Your task to perform on an android device: turn off notifications settings in the gmail app Image 0: 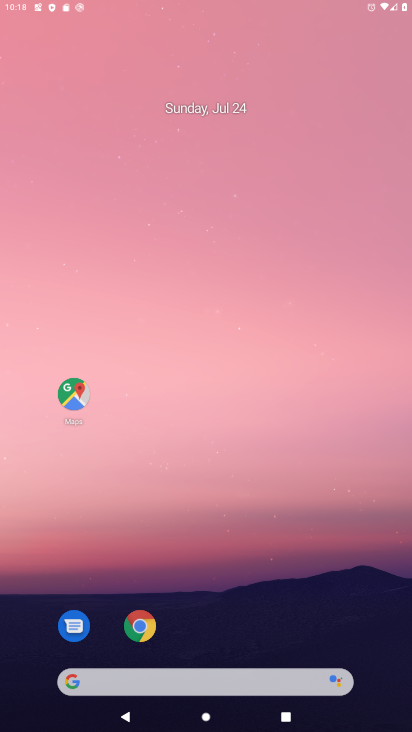
Step 0: click (230, 339)
Your task to perform on an android device: turn off notifications settings in the gmail app Image 1: 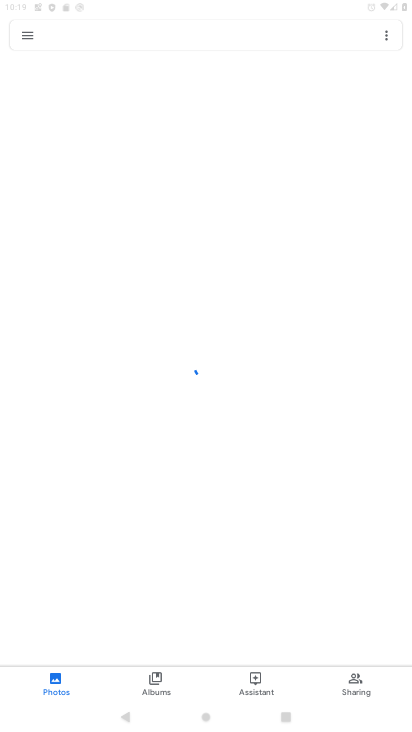
Step 1: press home button
Your task to perform on an android device: turn off notifications settings in the gmail app Image 2: 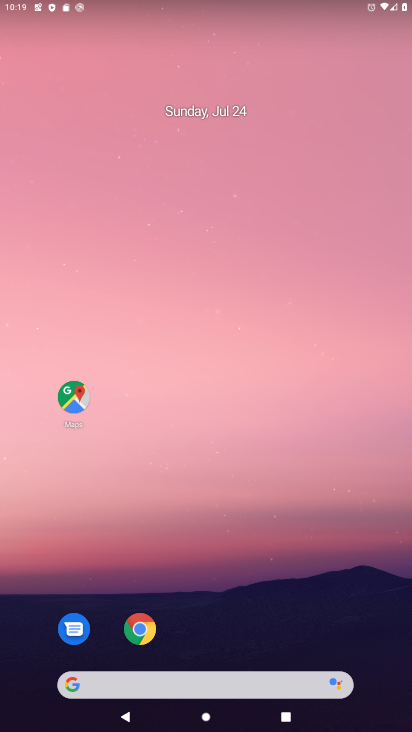
Step 2: drag from (178, 571) to (191, 6)
Your task to perform on an android device: turn off notifications settings in the gmail app Image 3: 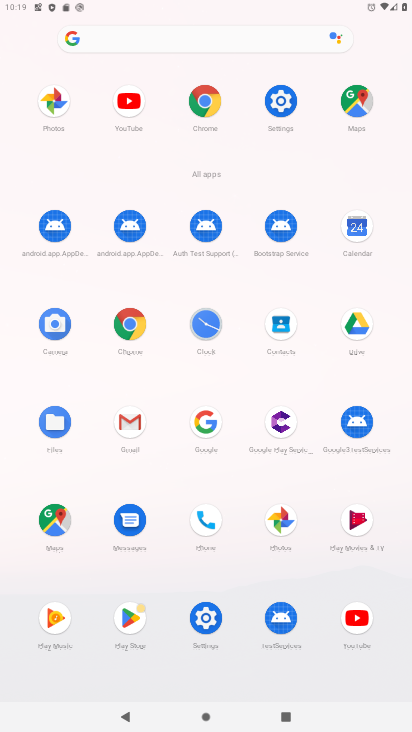
Step 3: click (126, 418)
Your task to perform on an android device: turn off notifications settings in the gmail app Image 4: 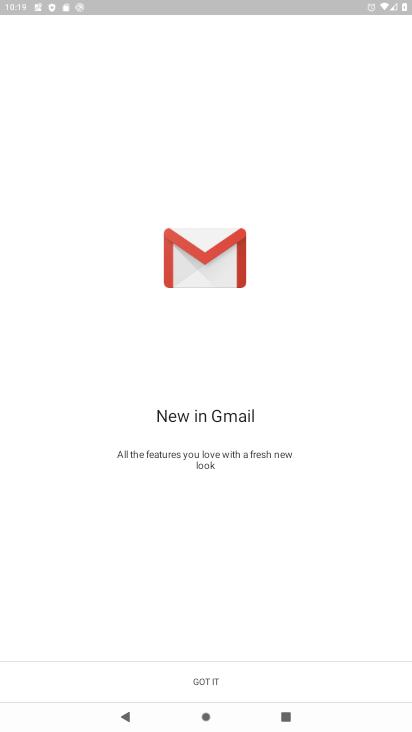
Step 4: drag from (252, 575) to (269, 338)
Your task to perform on an android device: turn off notifications settings in the gmail app Image 5: 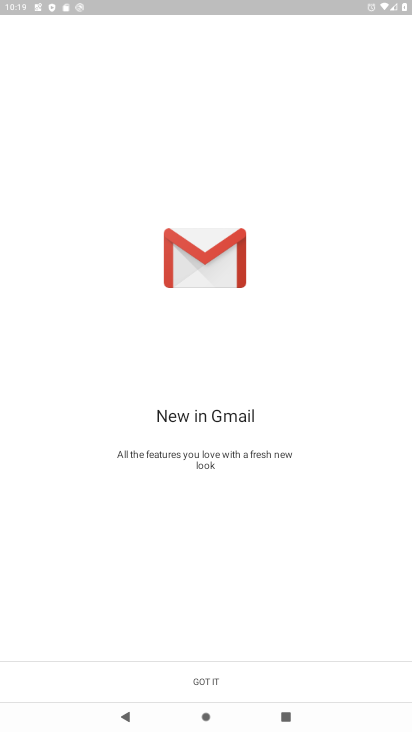
Step 5: click (217, 685)
Your task to perform on an android device: turn off notifications settings in the gmail app Image 6: 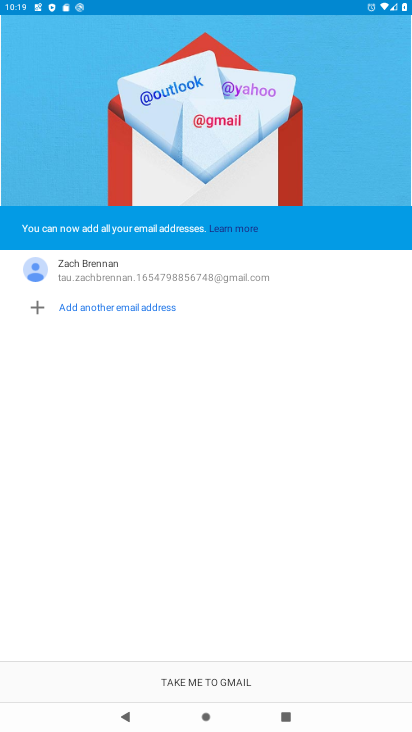
Step 6: click (206, 676)
Your task to perform on an android device: turn off notifications settings in the gmail app Image 7: 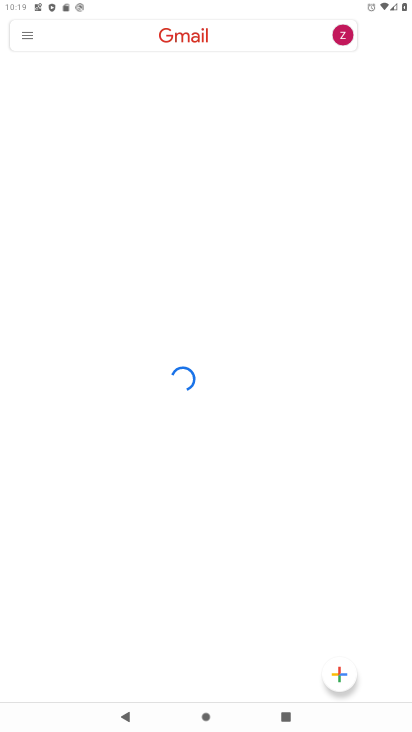
Step 7: click (31, 31)
Your task to perform on an android device: turn off notifications settings in the gmail app Image 8: 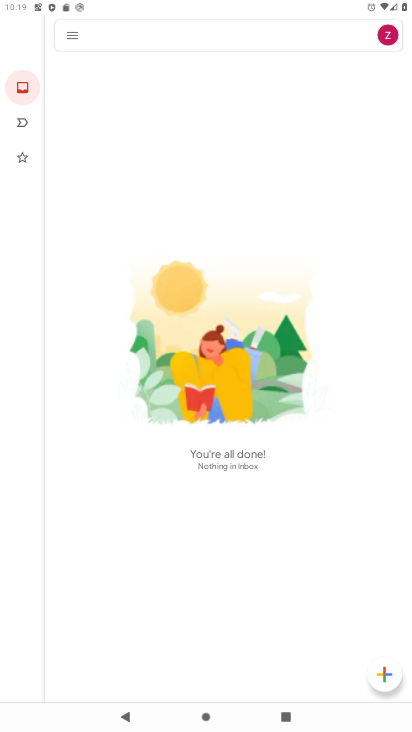
Step 8: click (71, 50)
Your task to perform on an android device: turn off notifications settings in the gmail app Image 9: 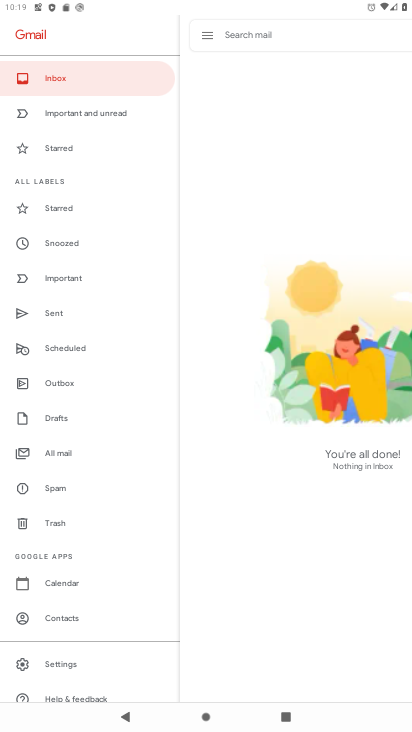
Step 9: click (50, 655)
Your task to perform on an android device: turn off notifications settings in the gmail app Image 10: 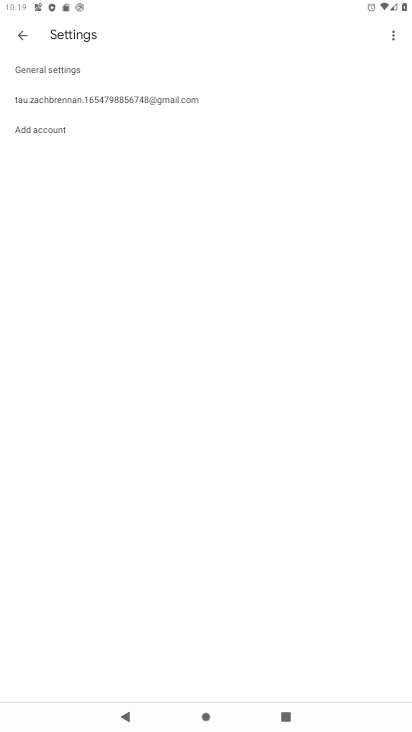
Step 10: click (115, 102)
Your task to perform on an android device: turn off notifications settings in the gmail app Image 11: 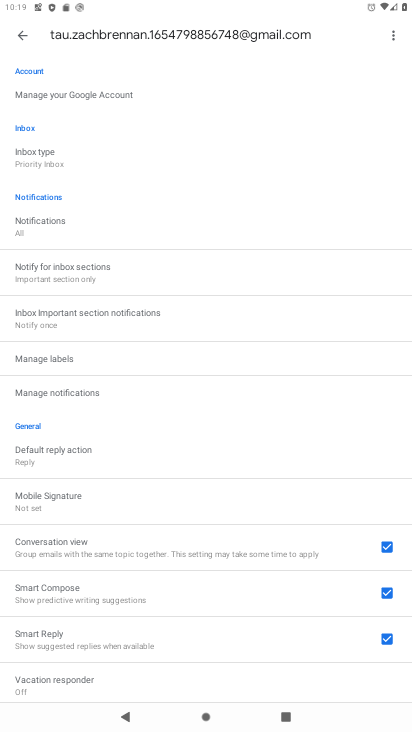
Step 11: click (100, 397)
Your task to perform on an android device: turn off notifications settings in the gmail app Image 12: 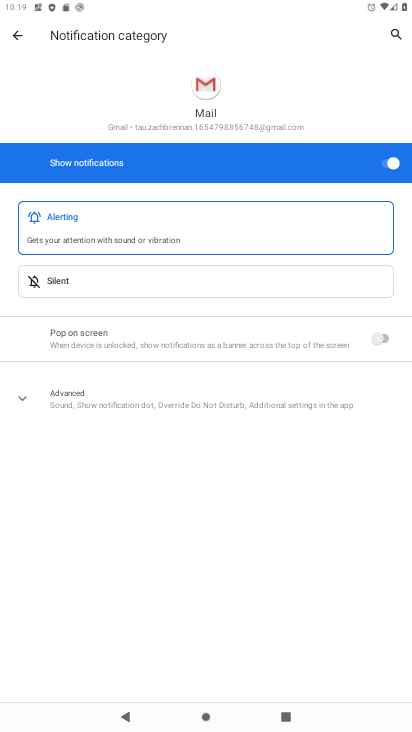
Step 12: click (387, 158)
Your task to perform on an android device: turn off notifications settings in the gmail app Image 13: 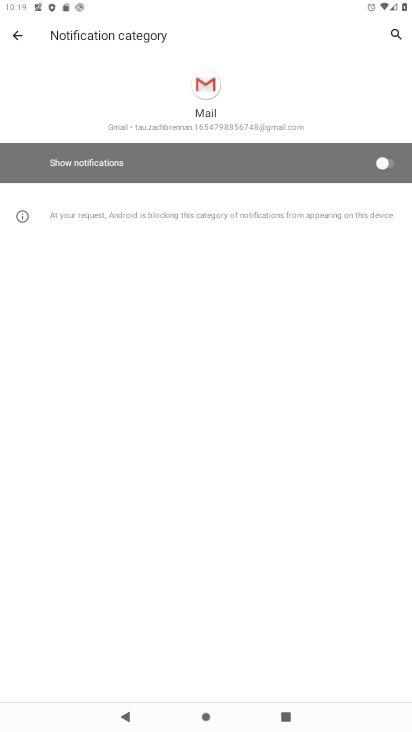
Step 13: task complete